Your task to perform on an android device: Check the weather Image 0: 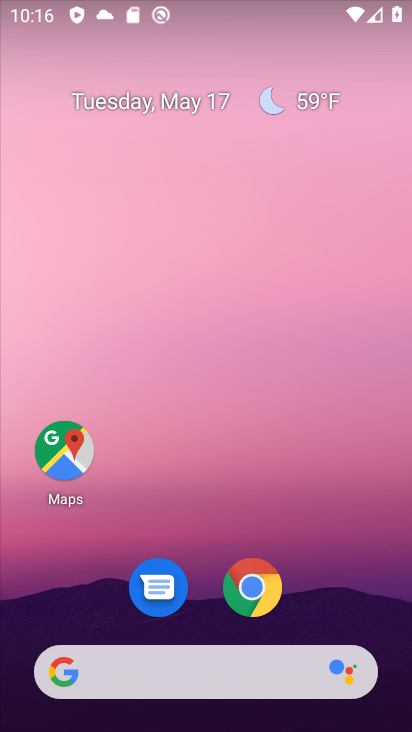
Step 0: click (307, 100)
Your task to perform on an android device: Check the weather Image 1: 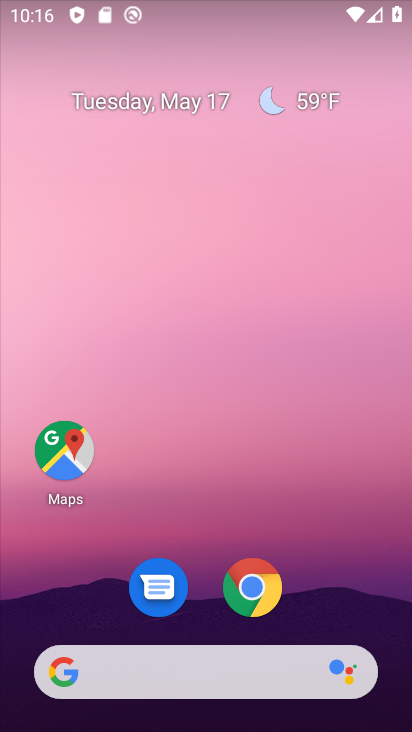
Step 1: click (315, 103)
Your task to perform on an android device: Check the weather Image 2: 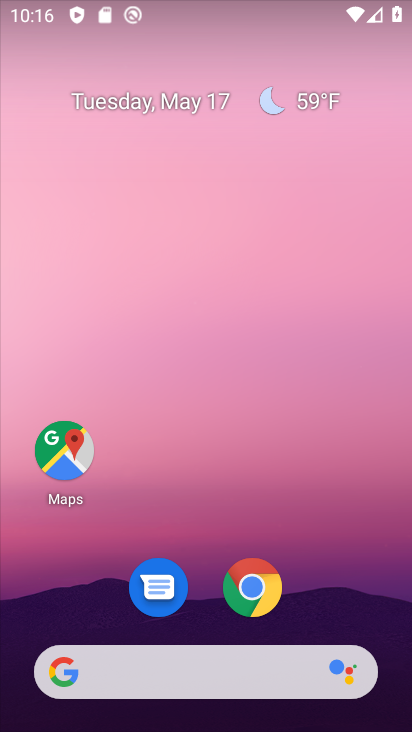
Step 2: click (315, 103)
Your task to perform on an android device: Check the weather Image 3: 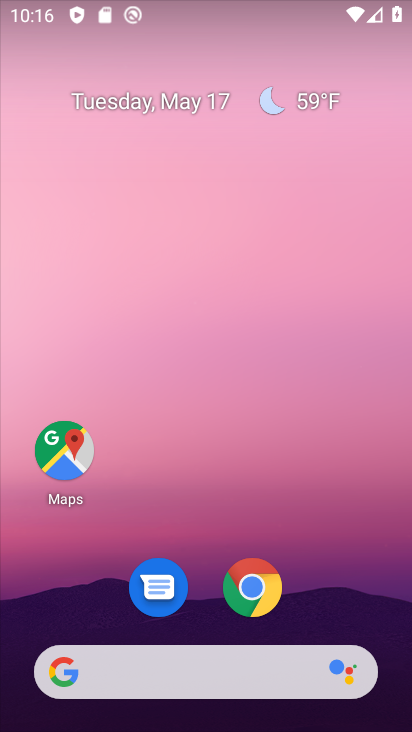
Step 3: click (299, 102)
Your task to perform on an android device: Check the weather Image 4: 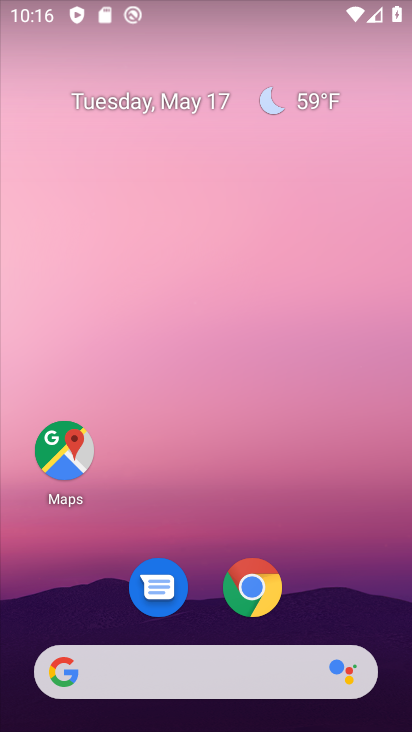
Step 4: click (330, 98)
Your task to perform on an android device: Check the weather Image 5: 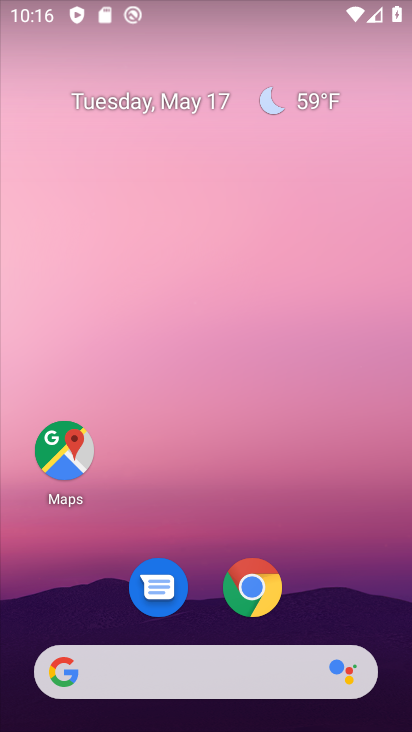
Step 5: click (330, 98)
Your task to perform on an android device: Check the weather Image 6: 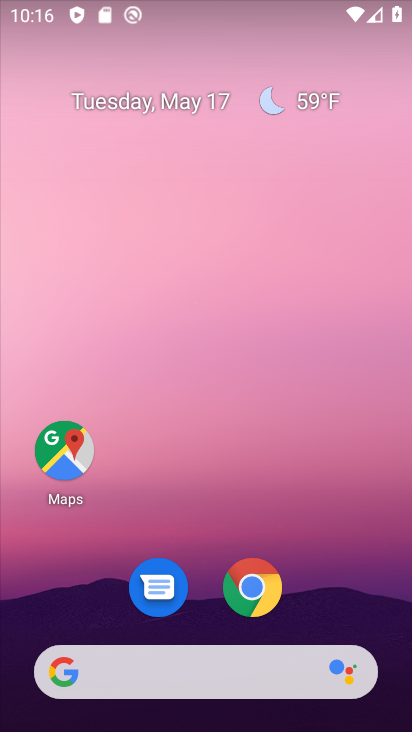
Step 6: click (318, 99)
Your task to perform on an android device: Check the weather Image 7: 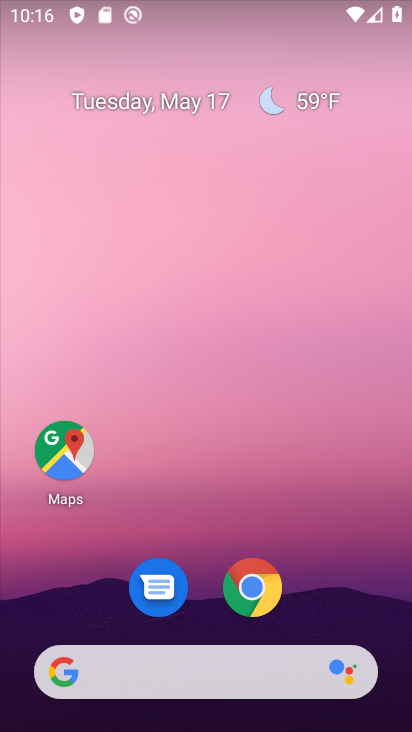
Step 7: drag from (347, 617) to (290, 210)
Your task to perform on an android device: Check the weather Image 8: 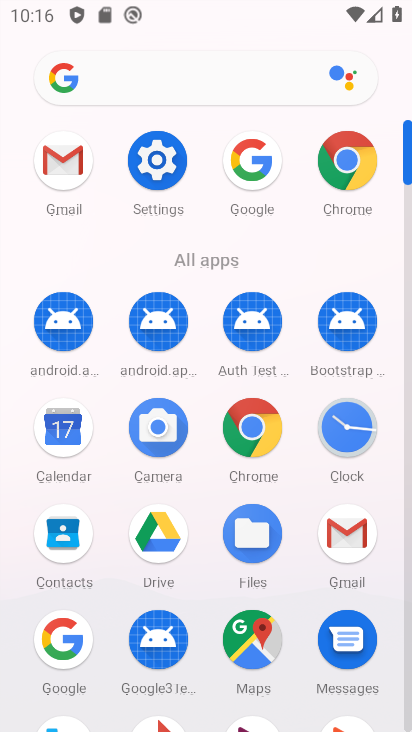
Step 8: click (259, 161)
Your task to perform on an android device: Check the weather Image 9: 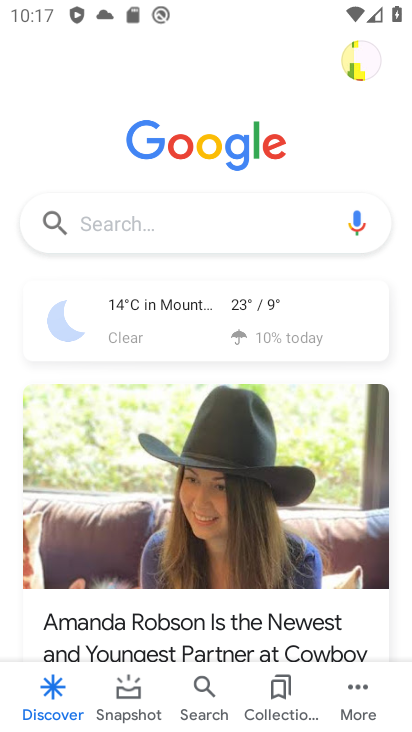
Step 9: click (265, 297)
Your task to perform on an android device: Check the weather Image 10: 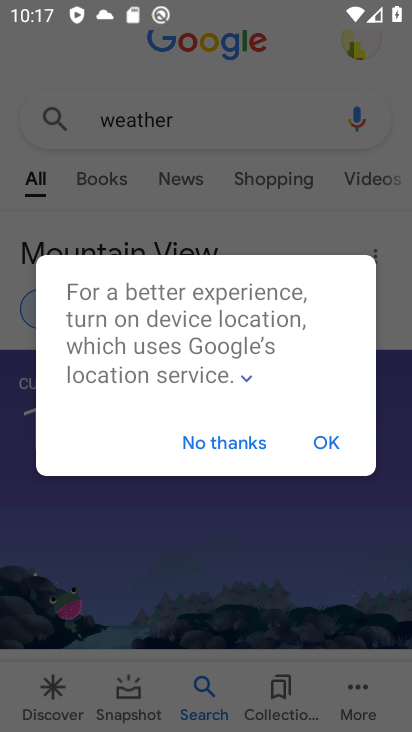
Step 10: click (336, 437)
Your task to perform on an android device: Check the weather Image 11: 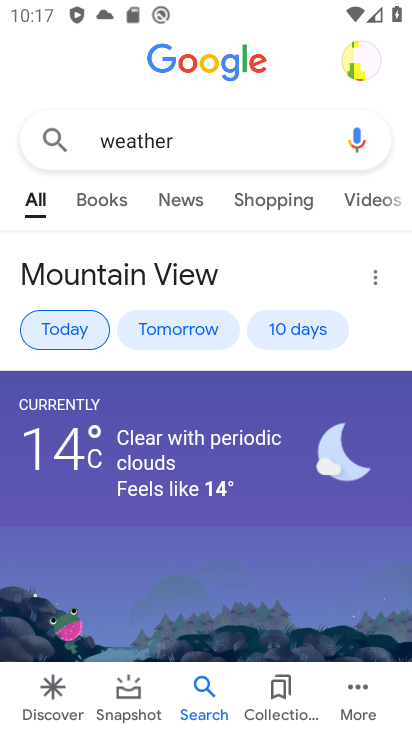
Step 11: task complete